Your task to perform on an android device: Open the calendar and show me this week's events? Image 0: 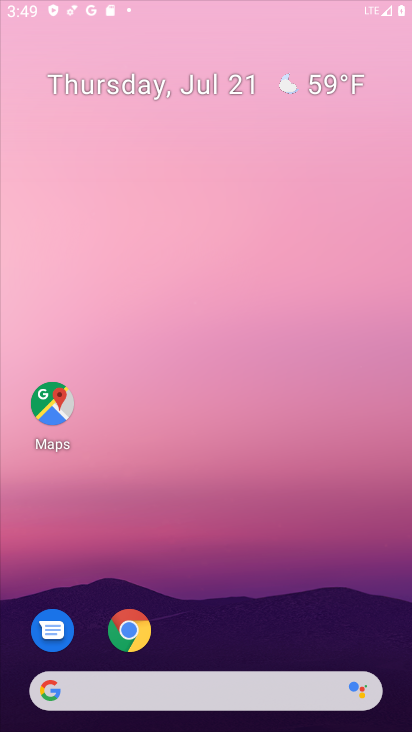
Step 0: drag from (281, 655) to (229, 292)
Your task to perform on an android device: Open the calendar and show me this week's events? Image 1: 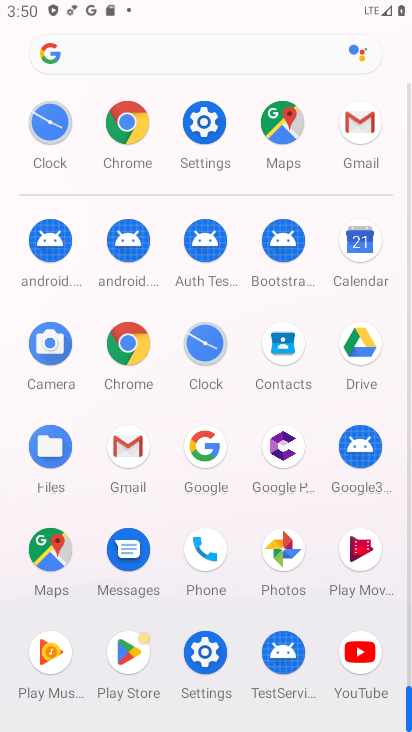
Step 1: click (352, 238)
Your task to perform on an android device: Open the calendar and show me this week's events? Image 2: 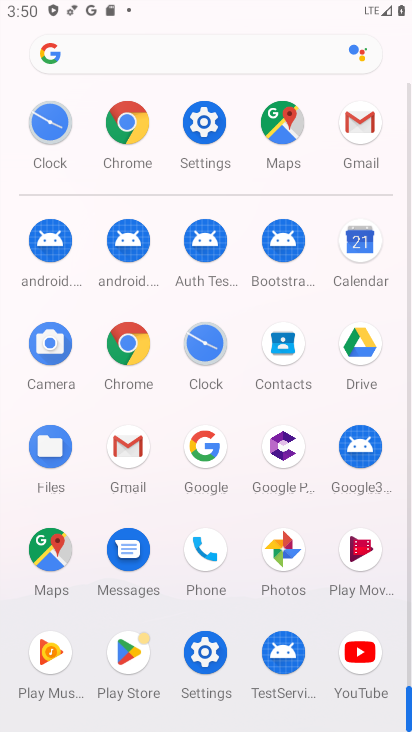
Step 2: click (359, 238)
Your task to perform on an android device: Open the calendar and show me this week's events? Image 3: 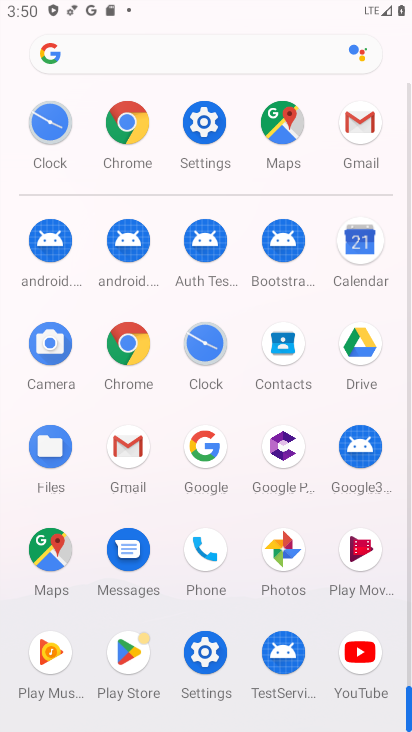
Step 3: click (360, 237)
Your task to perform on an android device: Open the calendar and show me this week's events? Image 4: 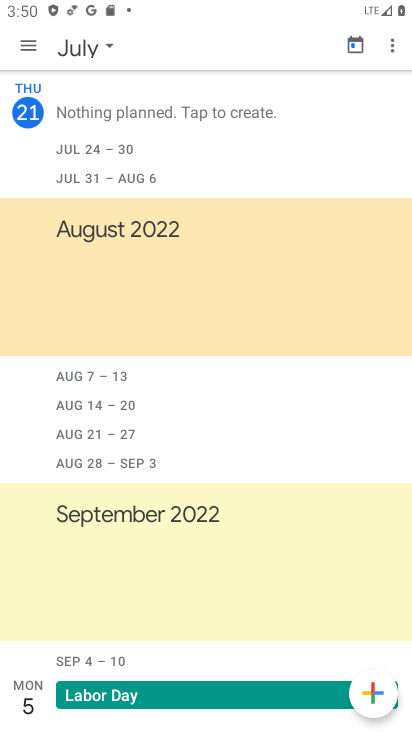
Step 4: click (112, 36)
Your task to perform on an android device: Open the calendar and show me this week's events? Image 5: 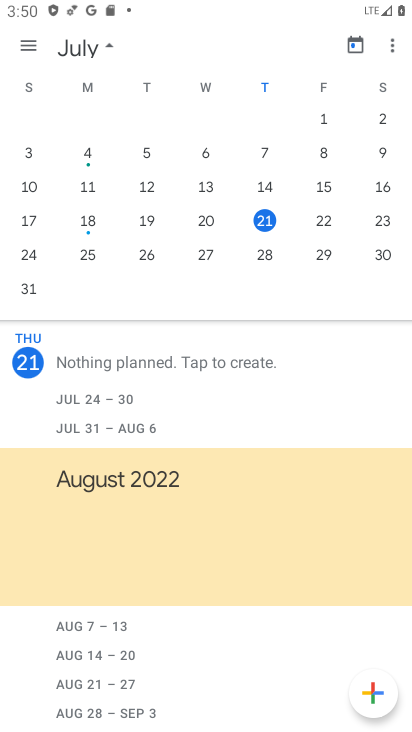
Step 5: task complete